Your task to perform on an android device: change the clock display to show seconds Image 0: 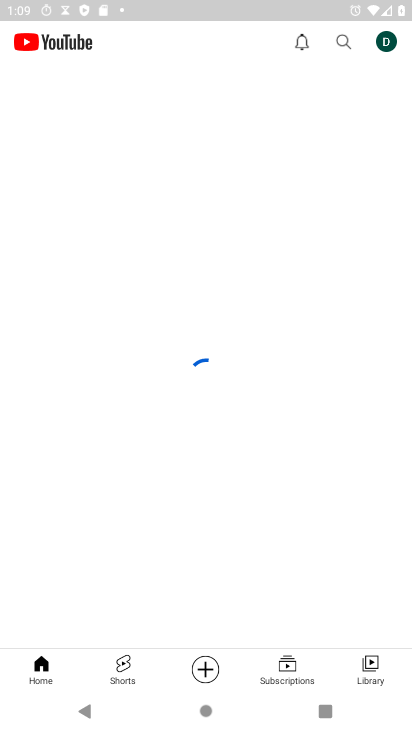
Step 0: press home button
Your task to perform on an android device: change the clock display to show seconds Image 1: 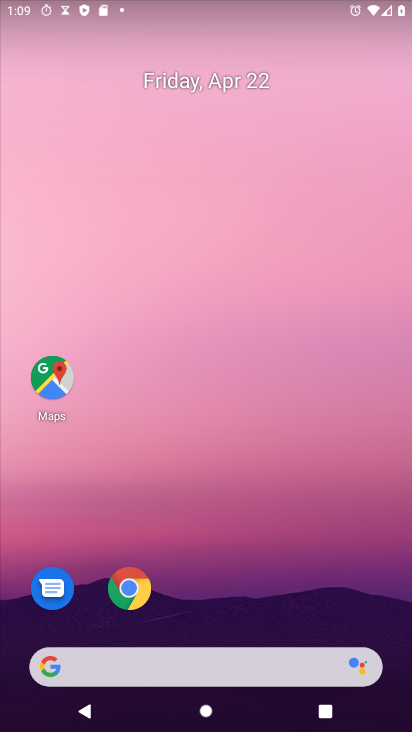
Step 1: drag from (235, 682) to (290, 198)
Your task to perform on an android device: change the clock display to show seconds Image 2: 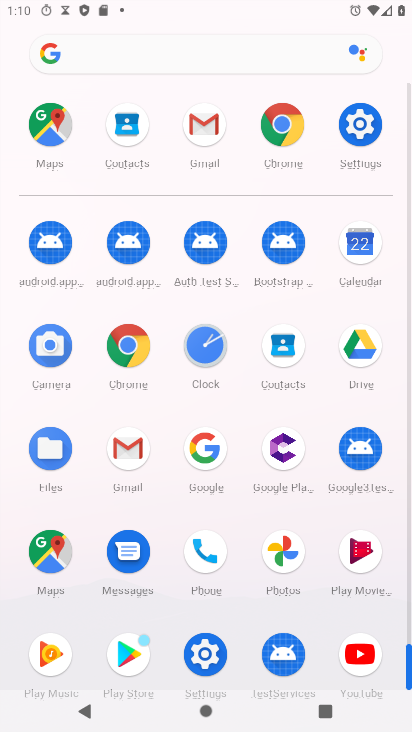
Step 2: click (214, 335)
Your task to perform on an android device: change the clock display to show seconds Image 3: 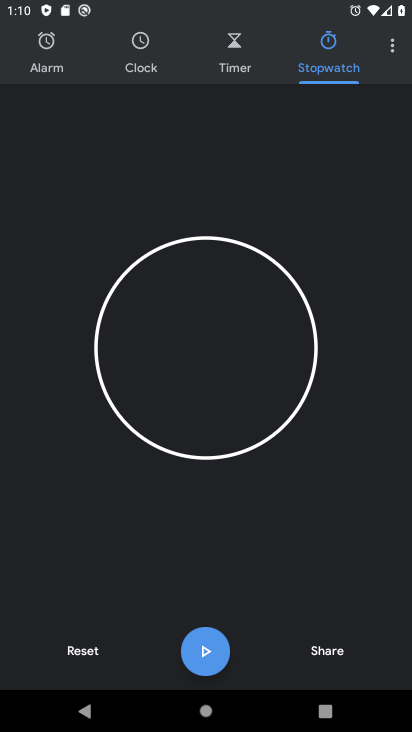
Step 3: click (391, 39)
Your task to perform on an android device: change the clock display to show seconds Image 4: 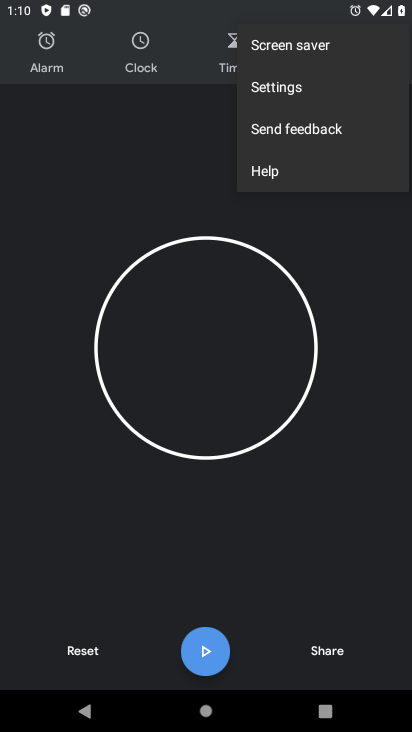
Step 4: click (292, 85)
Your task to perform on an android device: change the clock display to show seconds Image 5: 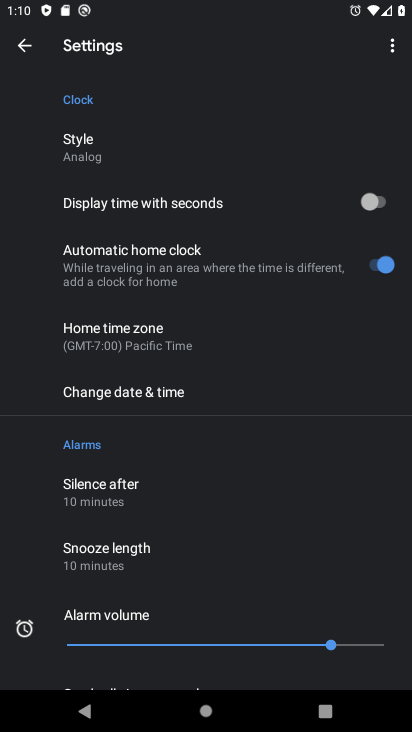
Step 5: click (317, 208)
Your task to perform on an android device: change the clock display to show seconds Image 6: 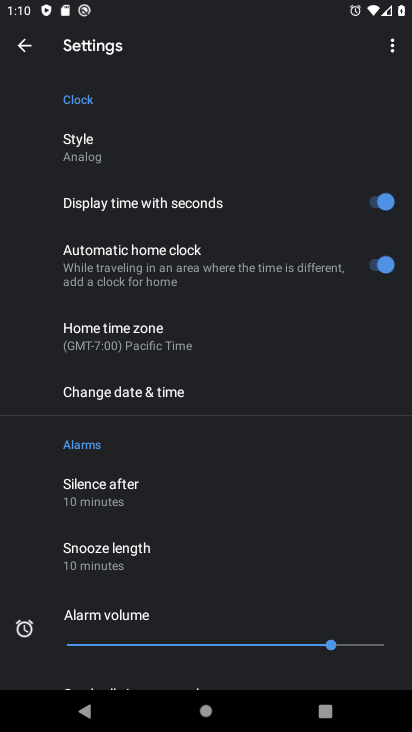
Step 6: task complete